Your task to perform on an android device: Open notification settings Image 0: 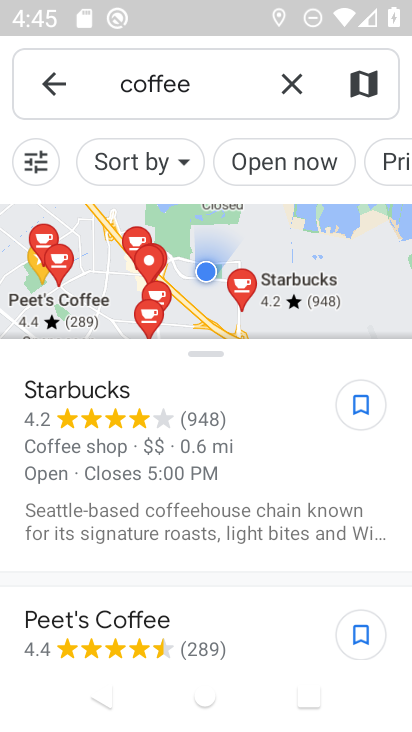
Step 0: press home button
Your task to perform on an android device: Open notification settings Image 1: 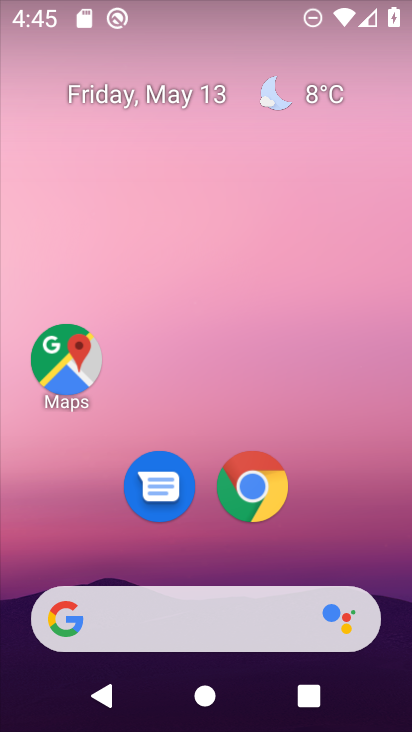
Step 1: drag from (366, 543) to (292, 344)
Your task to perform on an android device: Open notification settings Image 2: 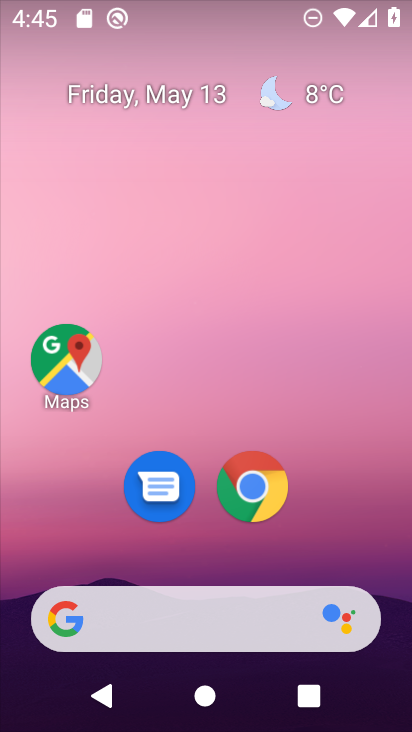
Step 2: drag from (311, 529) to (281, 274)
Your task to perform on an android device: Open notification settings Image 3: 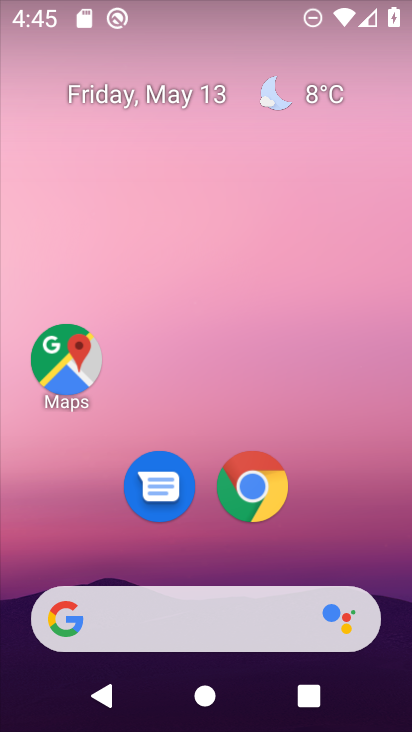
Step 3: drag from (318, 523) to (296, 191)
Your task to perform on an android device: Open notification settings Image 4: 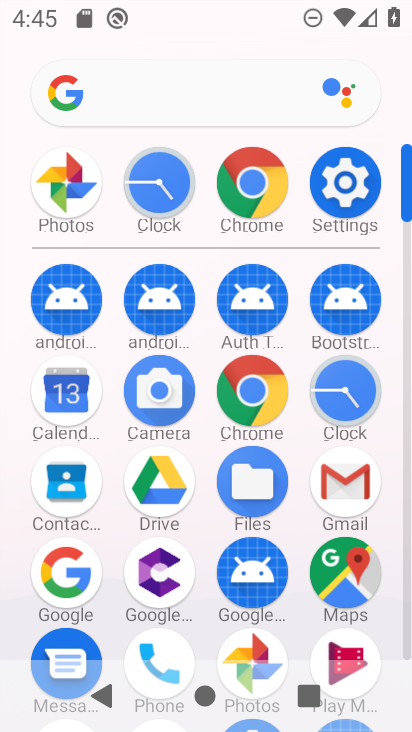
Step 4: click (334, 214)
Your task to perform on an android device: Open notification settings Image 5: 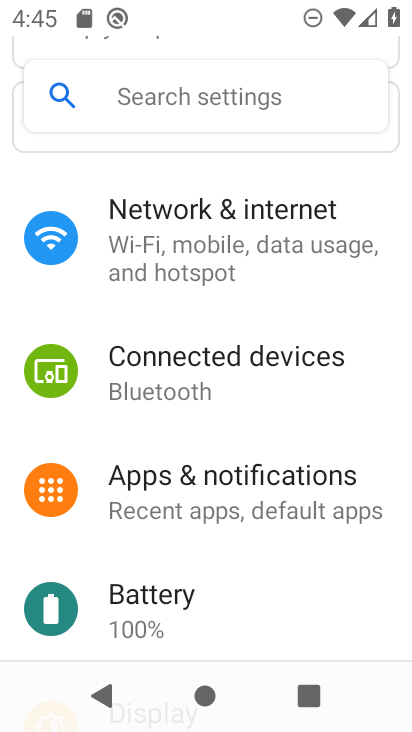
Step 5: click (295, 455)
Your task to perform on an android device: Open notification settings Image 6: 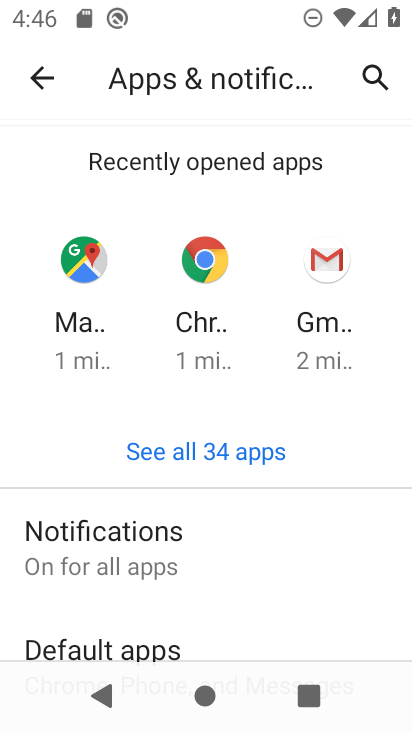
Step 6: task complete